Your task to perform on an android device: open wifi settings Image 0: 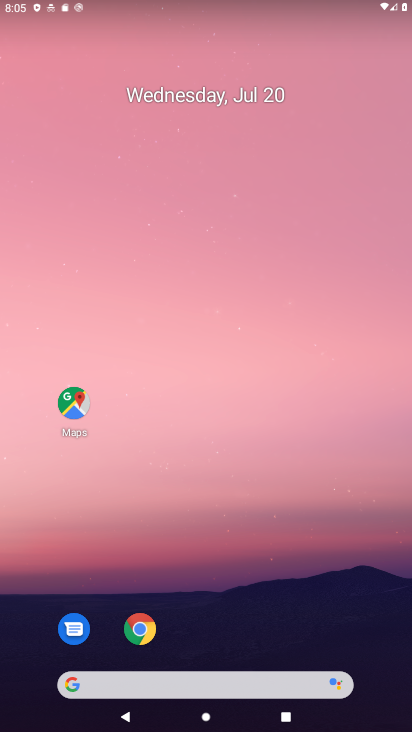
Step 0: drag from (262, 639) to (218, 156)
Your task to perform on an android device: open wifi settings Image 1: 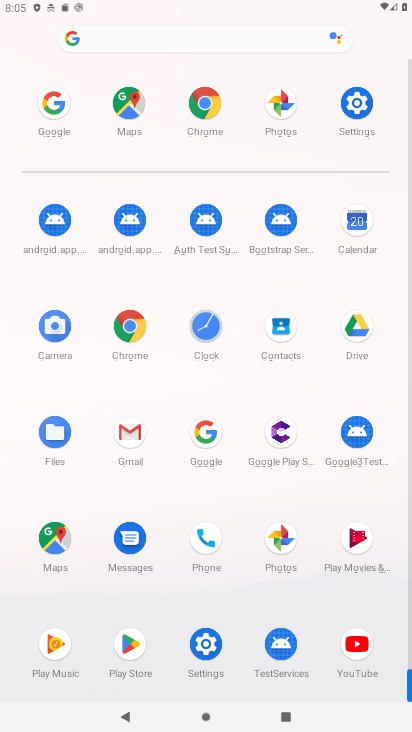
Step 1: click (342, 113)
Your task to perform on an android device: open wifi settings Image 2: 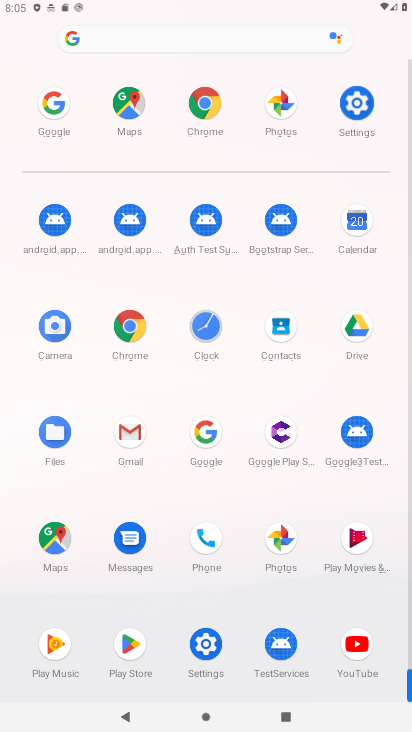
Step 2: click (343, 114)
Your task to perform on an android device: open wifi settings Image 3: 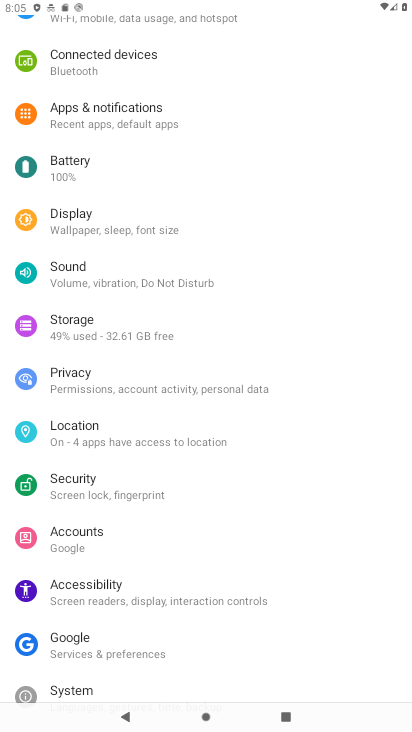
Step 3: drag from (162, 177) to (175, 442)
Your task to perform on an android device: open wifi settings Image 4: 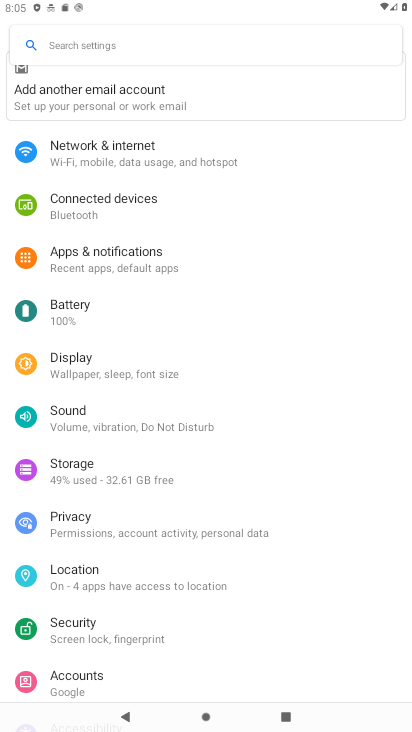
Step 4: drag from (125, 191) to (107, 648)
Your task to perform on an android device: open wifi settings Image 5: 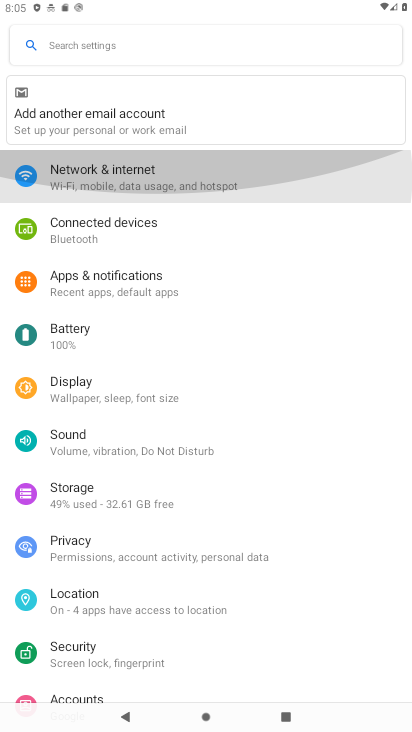
Step 5: drag from (82, 255) to (92, 721)
Your task to perform on an android device: open wifi settings Image 6: 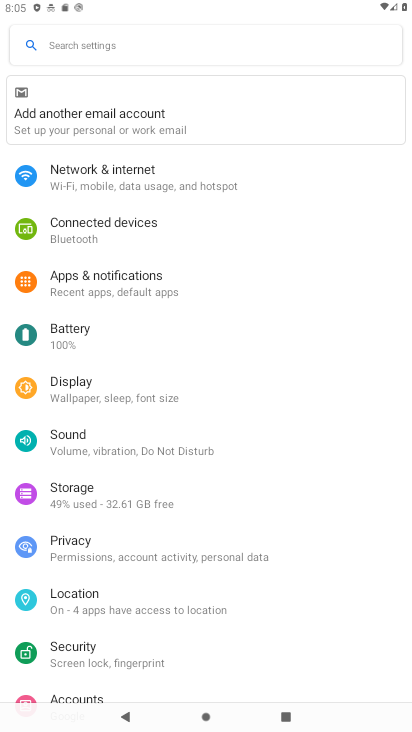
Step 6: click (116, 176)
Your task to perform on an android device: open wifi settings Image 7: 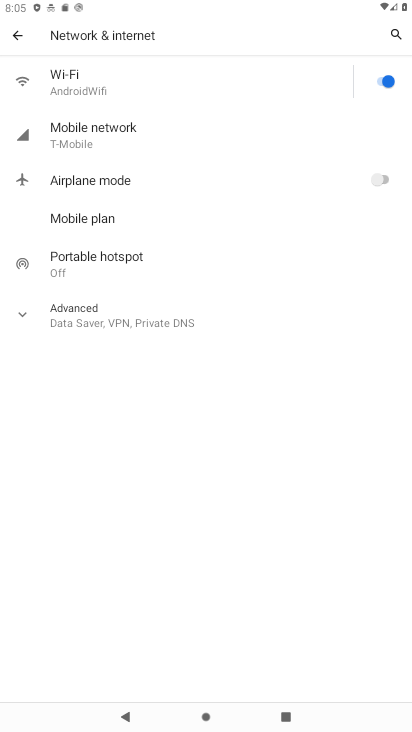
Step 7: task complete